Your task to perform on an android device: Go to Android settings Image 0: 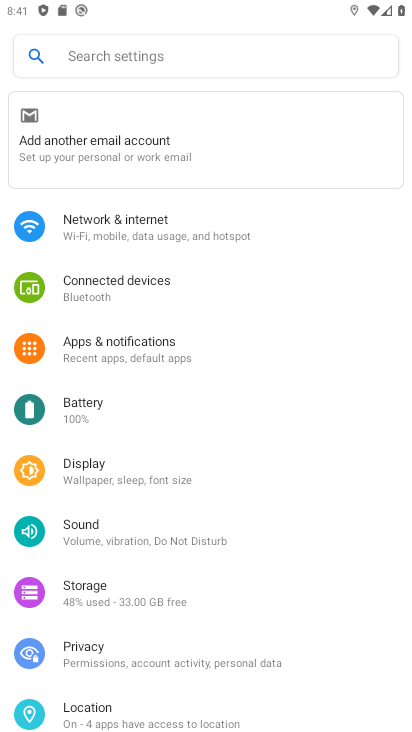
Step 0: drag from (156, 649) to (203, 267)
Your task to perform on an android device: Go to Android settings Image 1: 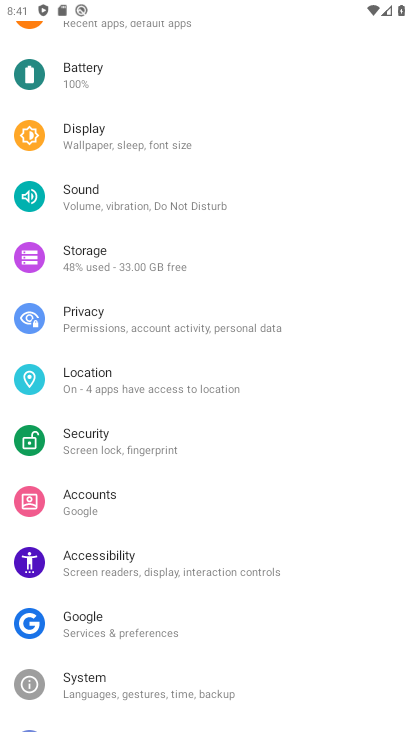
Step 1: drag from (137, 671) to (191, 264)
Your task to perform on an android device: Go to Android settings Image 2: 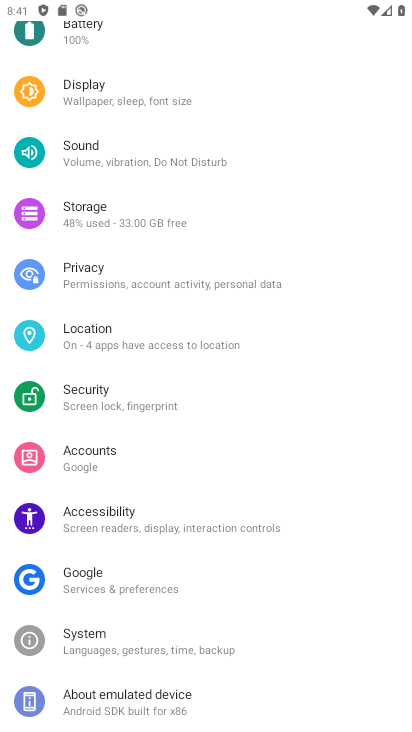
Step 2: click (112, 692)
Your task to perform on an android device: Go to Android settings Image 3: 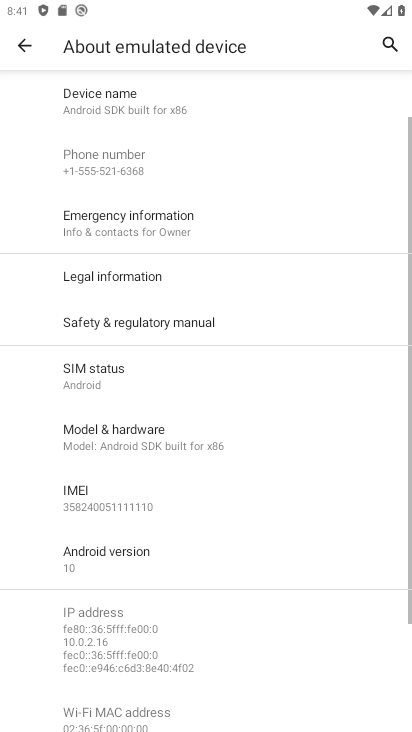
Step 3: click (105, 564)
Your task to perform on an android device: Go to Android settings Image 4: 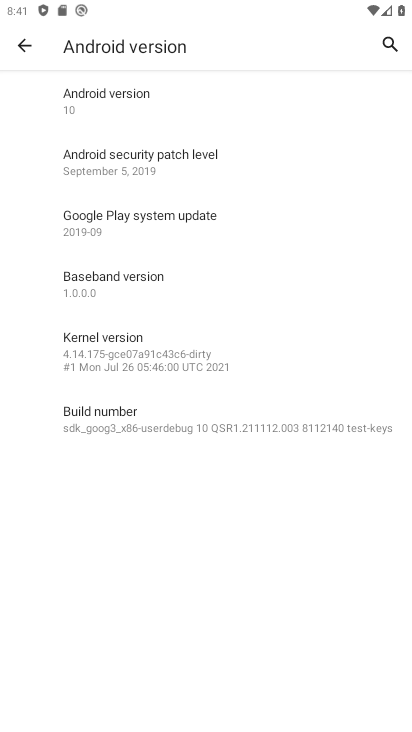
Step 4: task complete